Your task to perform on an android device: open app "Pinterest" Image 0: 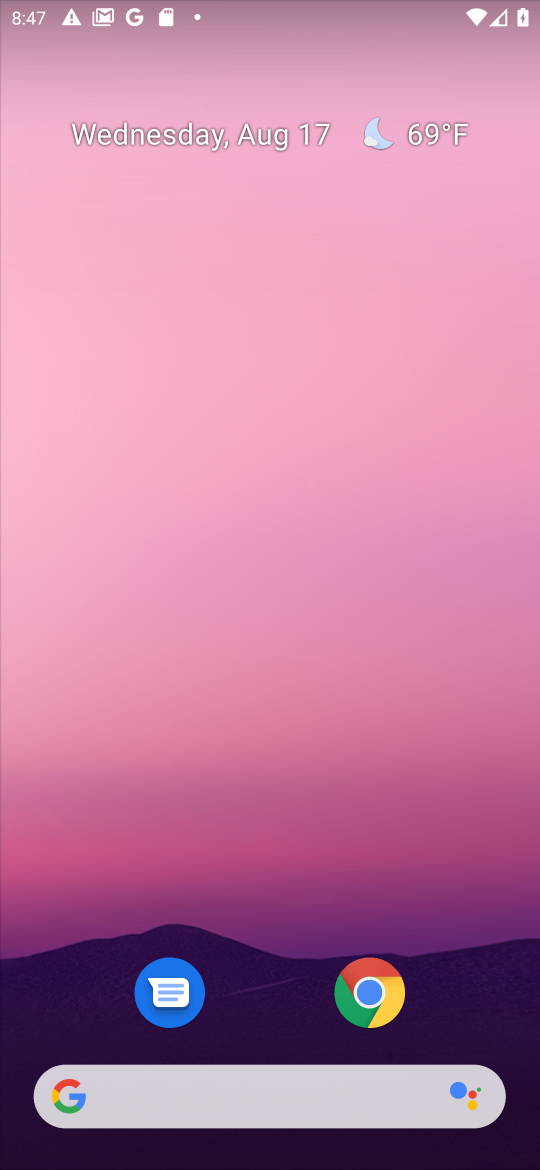
Step 0: drag from (450, 950) to (267, 25)
Your task to perform on an android device: open app "Pinterest" Image 1: 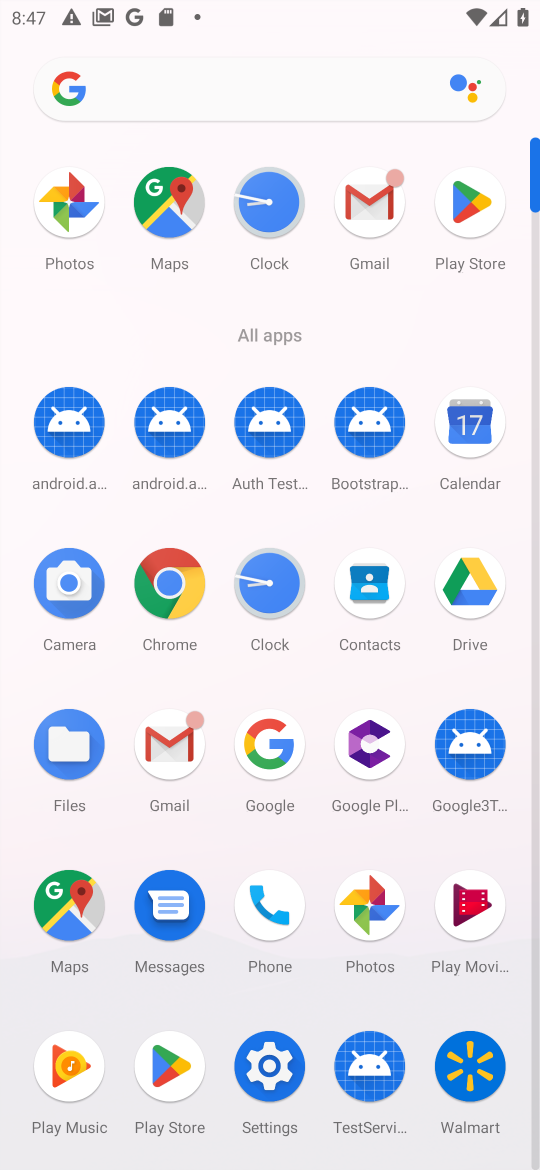
Step 1: click (157, 1081)
Your task to perform on an android device: open app "Pinterest" Image 2: 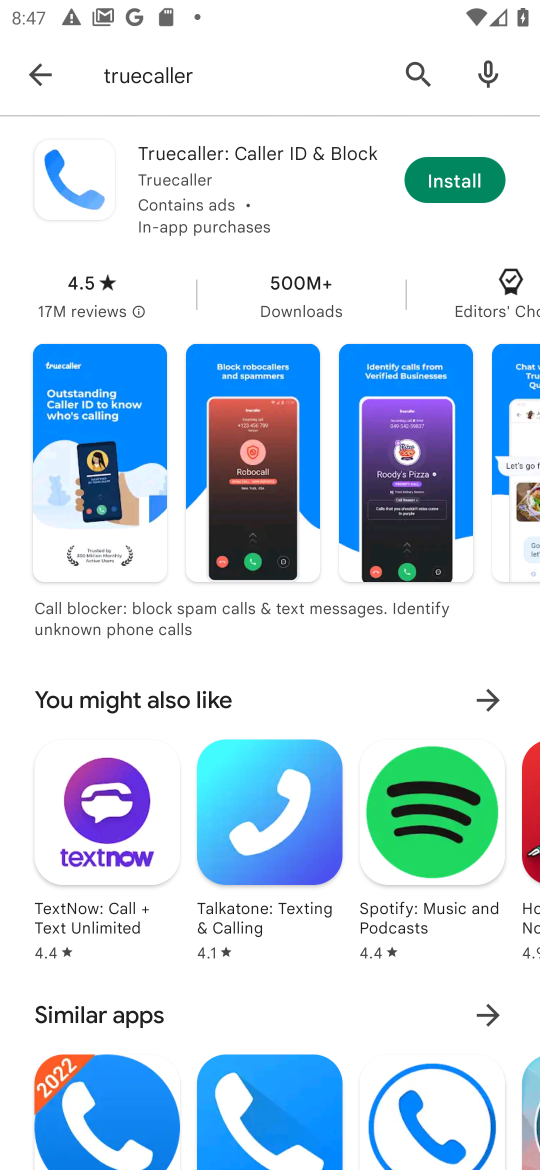
Step 2: press back button
Your task to perform on an android device: open app "Pinterest" Image 3: 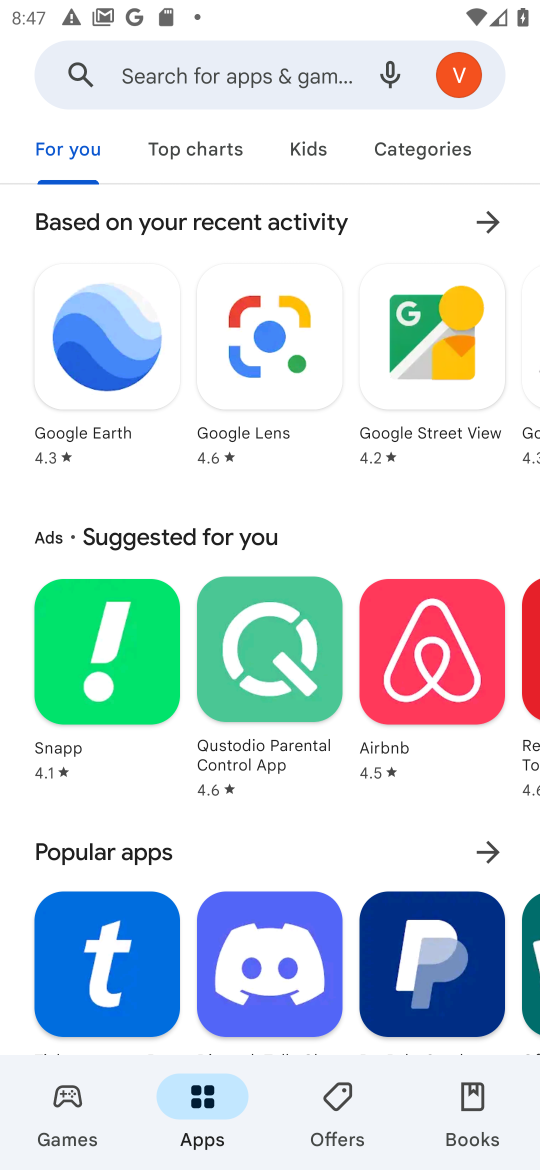
Step 3: click (151, 74)
Your task to perform on an android device: open app "Pinterest" Image 4: 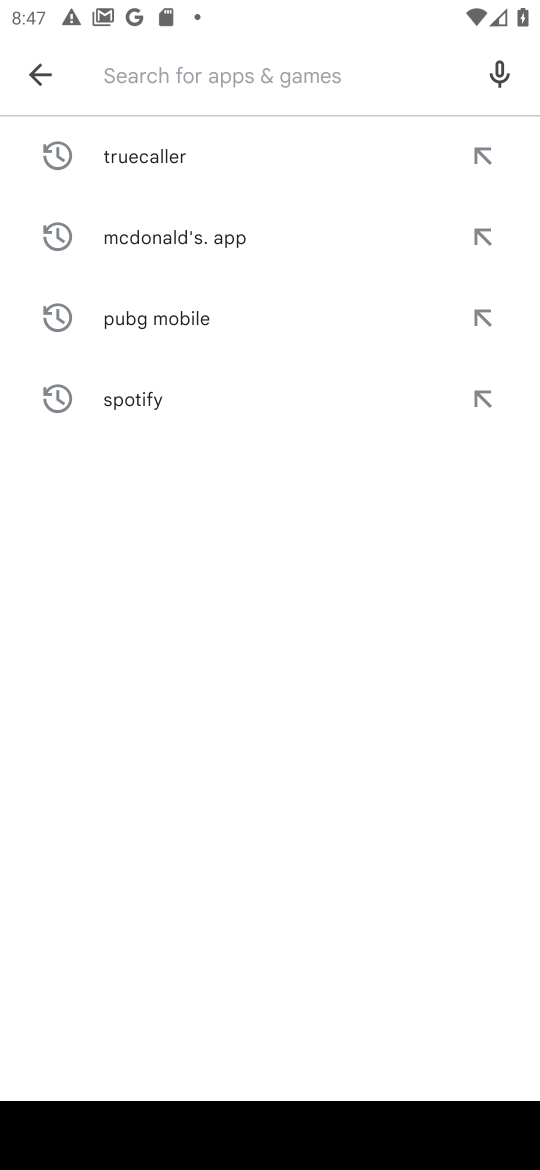
Step 4: type "Pinterest"
Your task to perform on an android device: open app "Pinterest" Image 5: 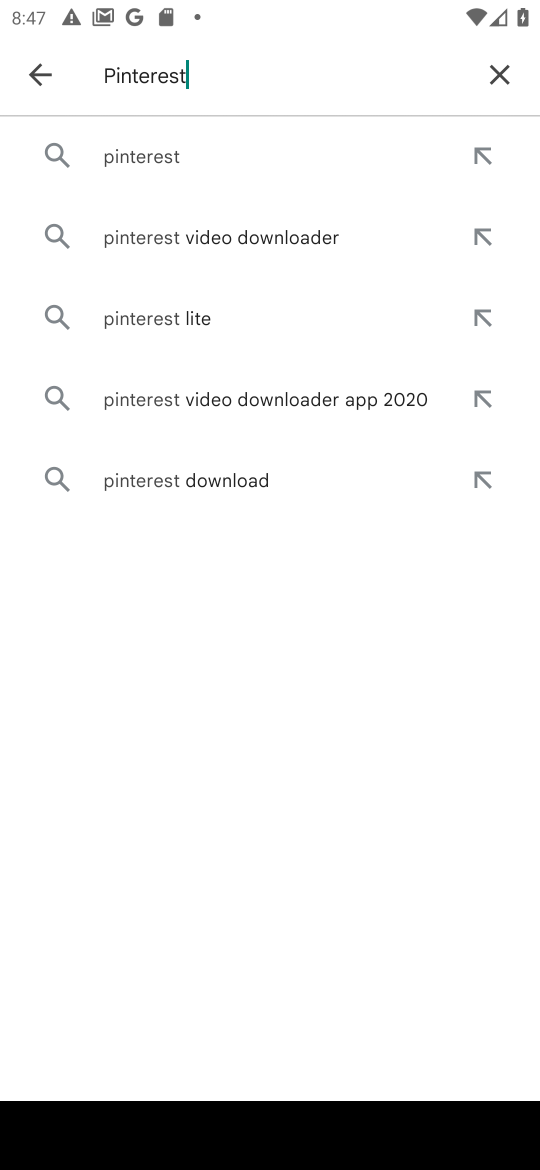
Step 5: click (187, 162)
Your task to perform on an android device: open app "Pinterest" Image 6: 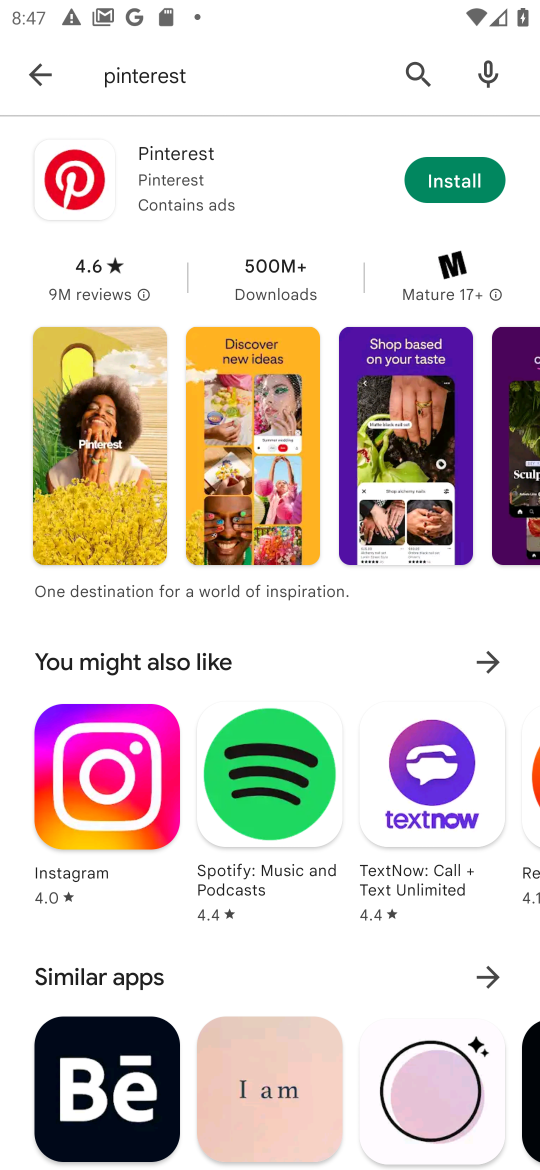
Step 6: task complete